Your task to perform on an android device: turn pop-ups on in chrome Image 0: 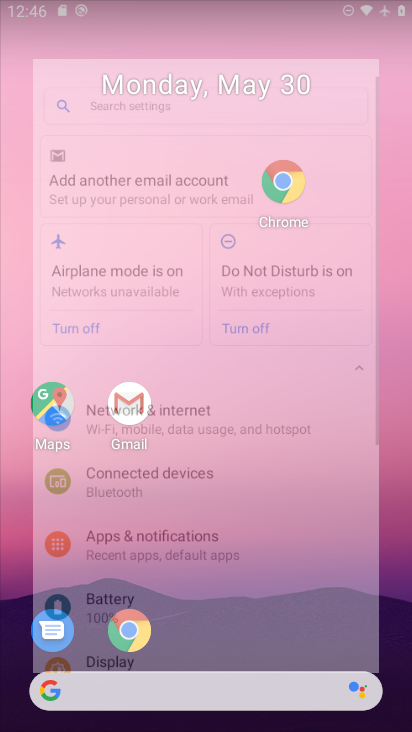
Step 0: drag from (214, 688) to (146, 193)
Your task to perform on an android device: turn pop-ups on in chrome Image 1: 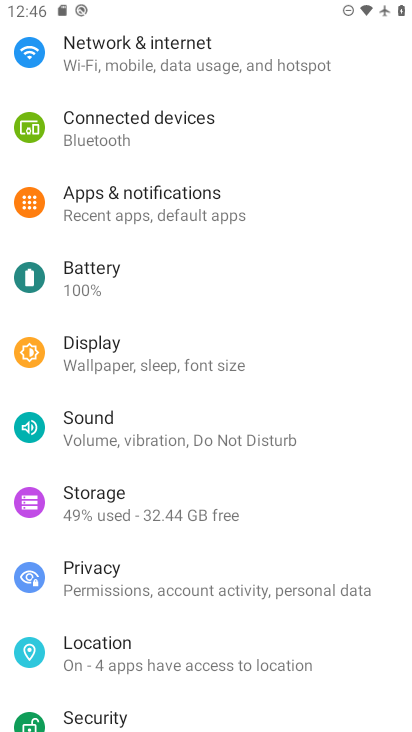
Step 1: press home button
Your task to perform on an android device: turn pop-ups on in chrome Image 2: 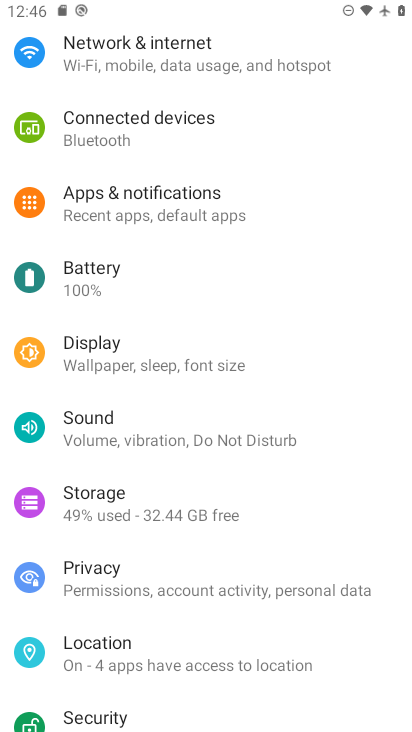
Step 2: press home button
Your task to perform on an android device: turn pop-ups on in chrome Image 3: 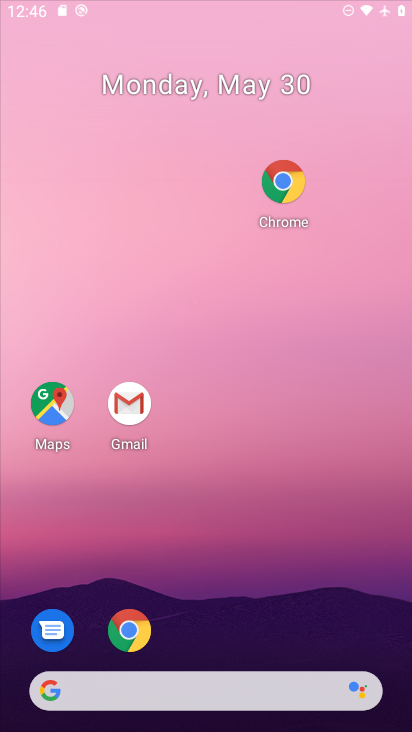
Step 3: press home button
Your task to perform on an android device: turn pop-ups on in chrome Image 4: 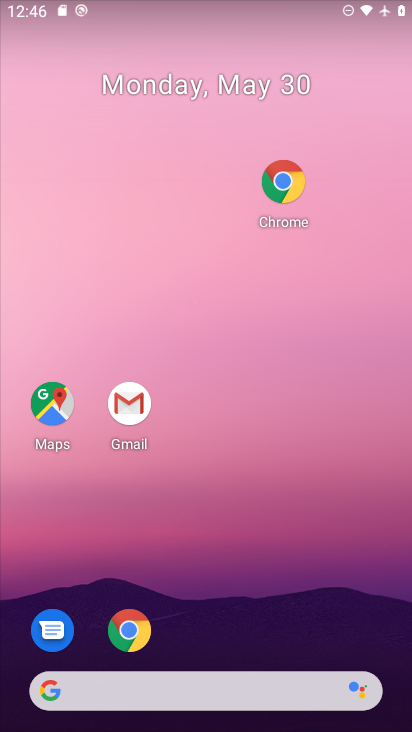
Step 4: drag from (267, 680) to (247, 226)
Your task to perform on an android device: turn pop-ups on in chrome Image 5: 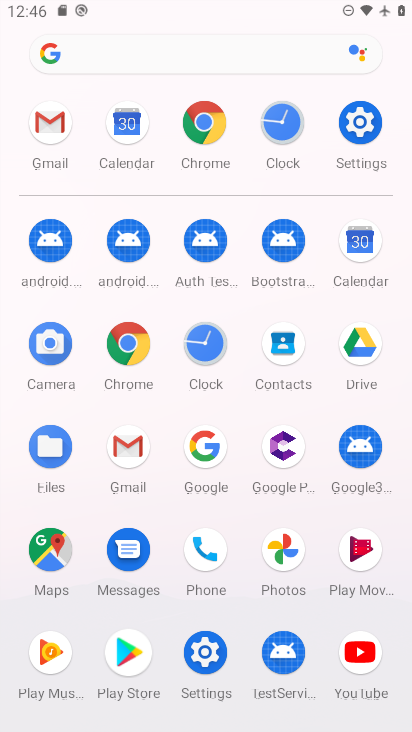
Step 5: click (190, 127)
Your task to perform on an android device: turn pop-ups on in chrome Image 6: 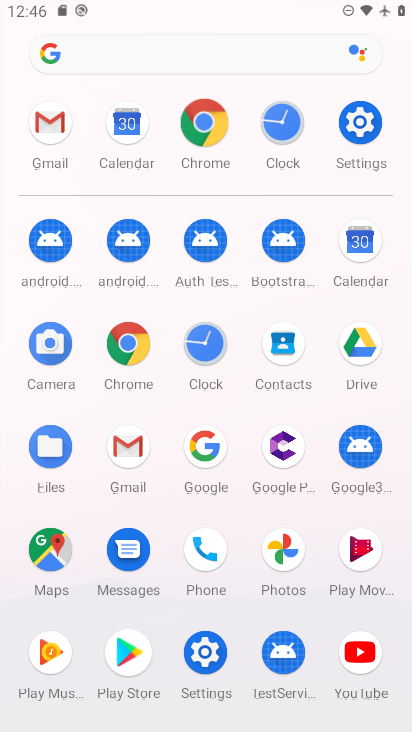
Step 6: click (196, 128)
Your task to perform on an android device: turn pop-ups on in chrome Image 7: 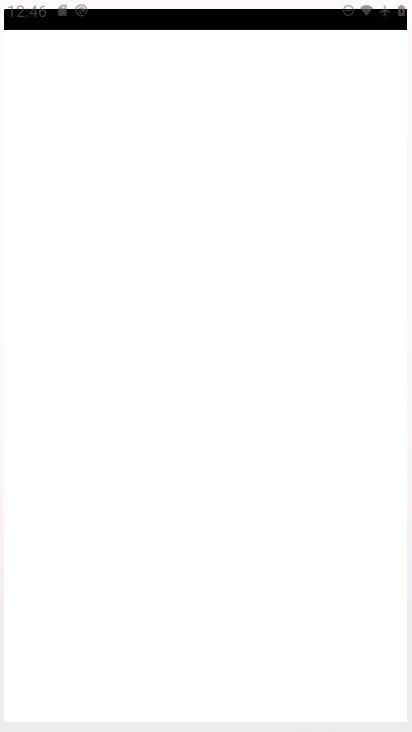
Step 7: click (203, 128)
Your task to perform on an android device: turn pop-ups on in chrome Image 8: 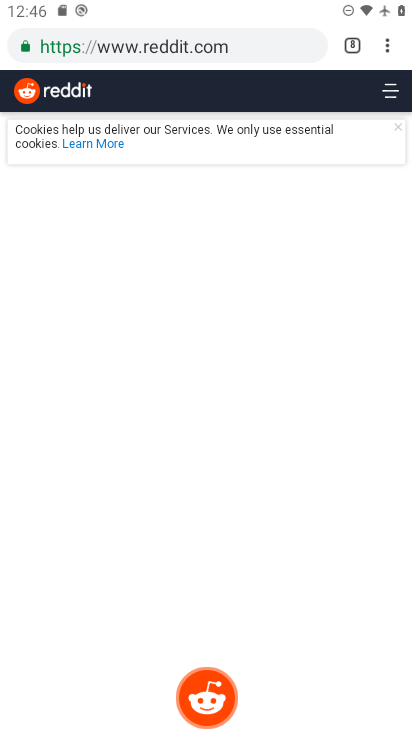
Step 8: drag from (385, 39) to (230, 549)
Your task to perform on an android device: turn pop-ups on in chrome Image 9: 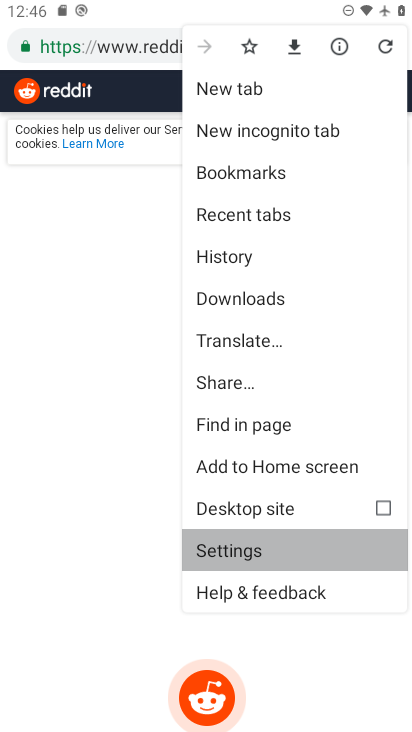
Step 9: click (230, 550)
Your task to perform on an android device: turn pop-ups on in chrome Image 10: 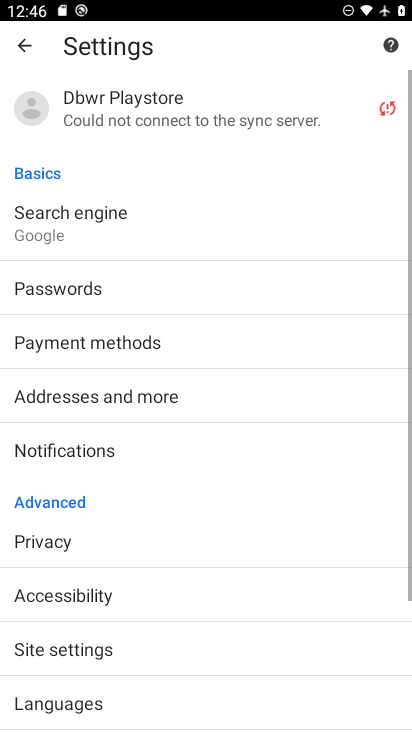
Step 10: drag from (108, 485) to (77, 227)
Your task to perform on an android device: turn pop-ups on in chrome Image 11: 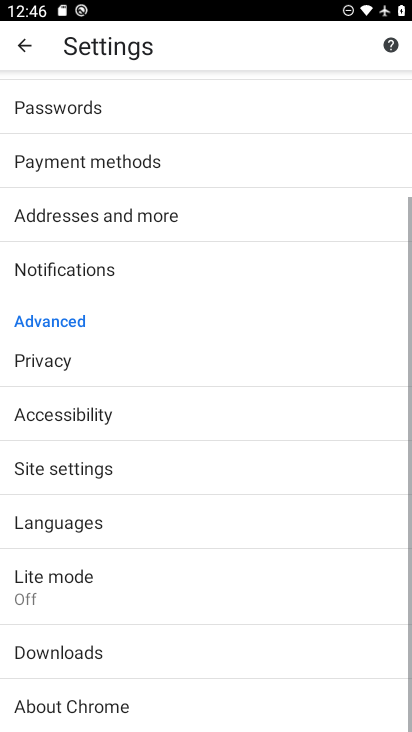
Step 11: drag from (82, 534) to (82, 264)
Your task to perform on an android device: turn pop-ups on in chrome Image 12: 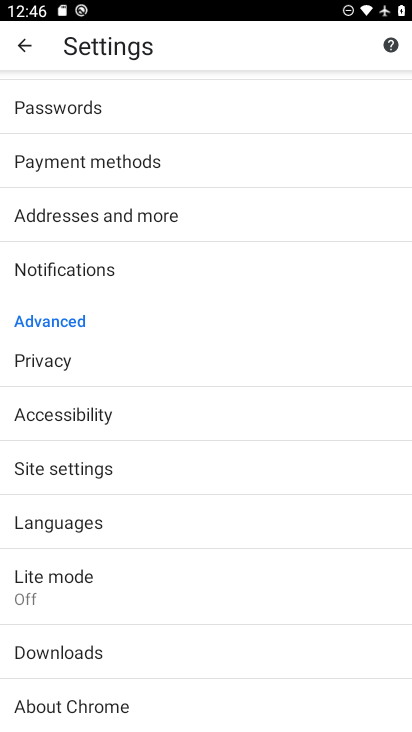
Step 12: click (56, 469)
Your task to perform on an android device: turn pop-ups on in chrome Image 13: 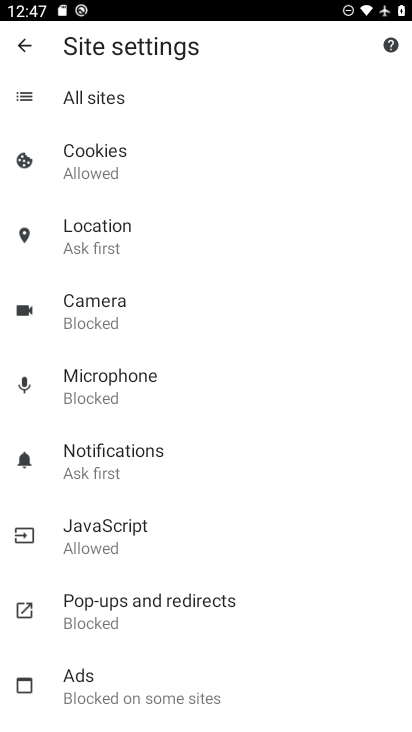
Step 13: click (102, 610)
Your task to perform on an android device: turn pop-ups on in chrome Image 14: 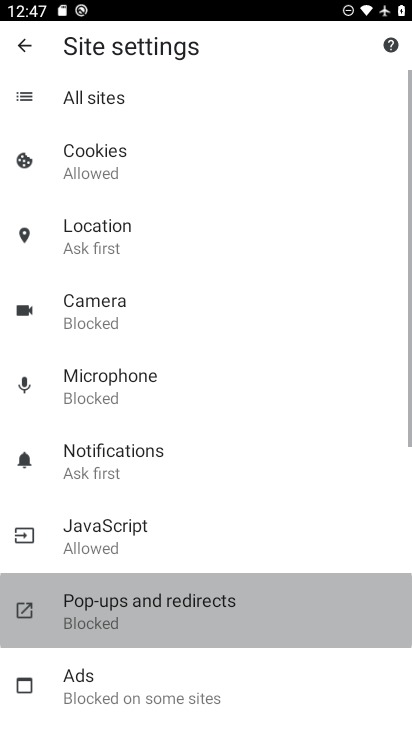
Step 14: click (102, 610)
Your task to perform on an android device: turn pop-ups on in chrome Image 15: 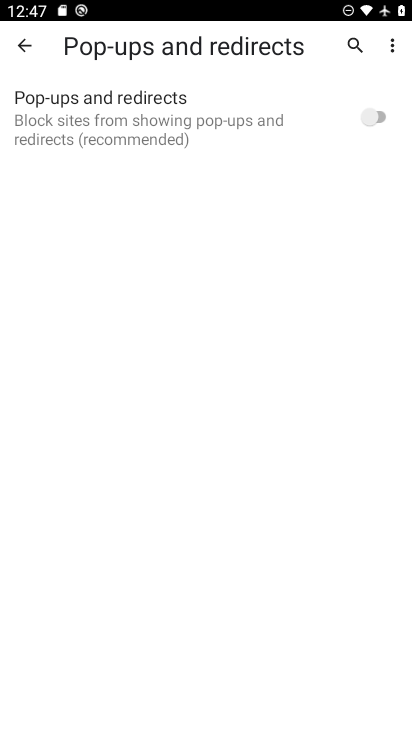
Step 15: click (101, 610)
Your task to perform on an android device: turn pop-ups on in chrome Image 16: 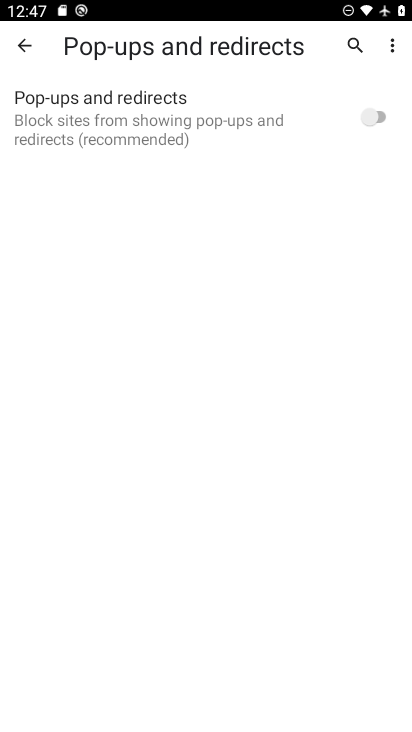
Step 16: click (361, 115)
Your task to perform on an android device: turn pop-ups on in chrome Image 17: 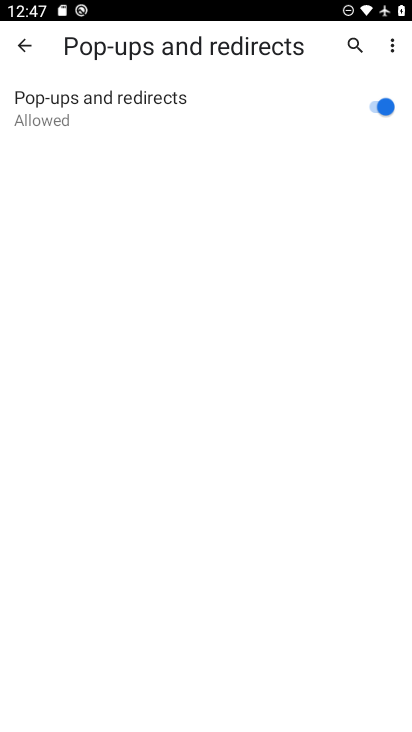
Step 17: task complete